Your task to perform on an android device: turn on data saver in the chrome app Image 0: 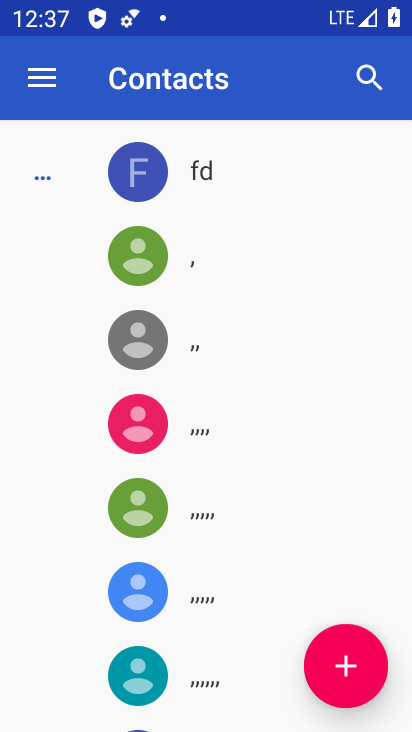
Step 0: press home button
Your task to perform on an android device: turn on data saver in the chrome app Image 1: 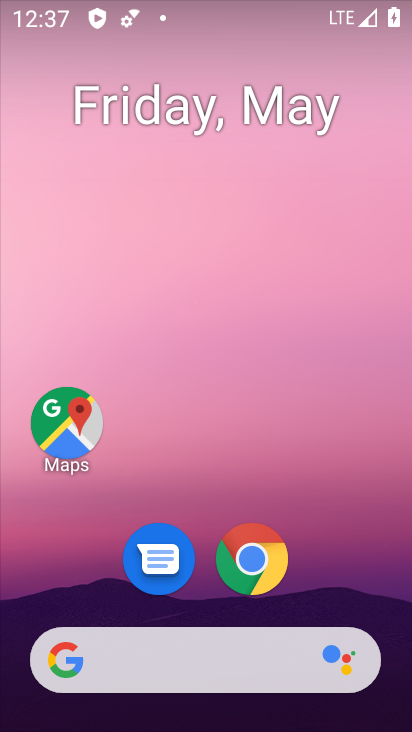
Step 1: click (259, 551)
Your task to perform on an android device: turn on data saver in the chrome app Image 2: 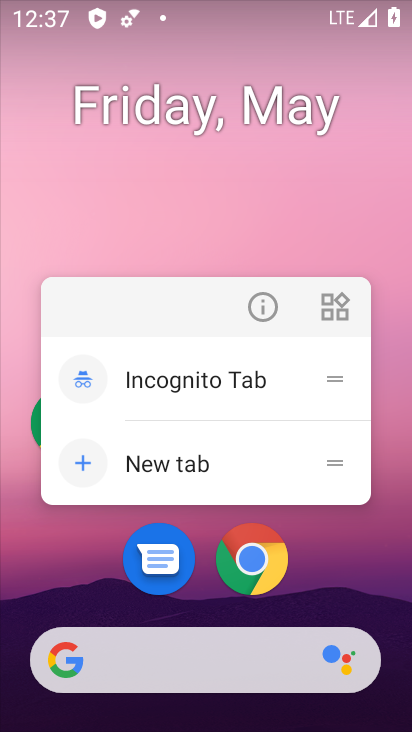
Step 2: click (259, 551)
Your task to perform on an android device: turn on data saver in the chrome app Image 3: 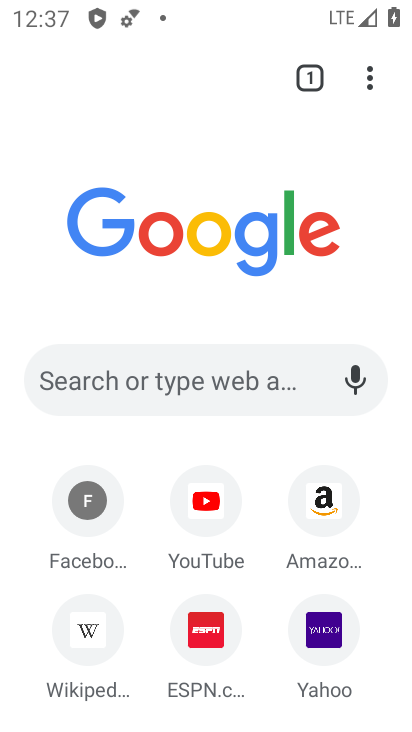
Step 3: drag from (376, 69) to (251, 620)
Your task to perform on an android device: turn on data saver in the chrome app Image 4: 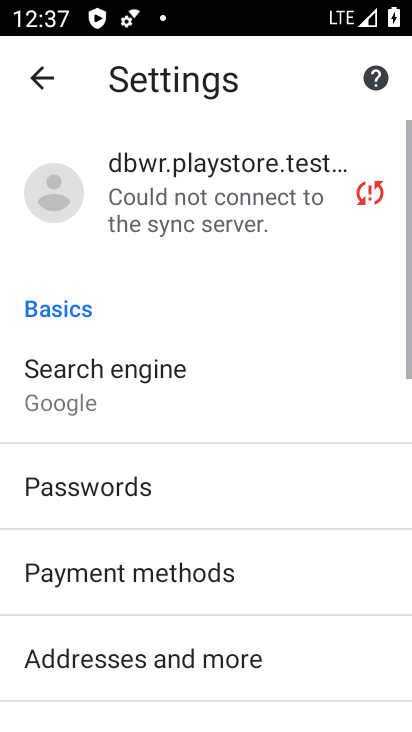
Step 4: drag from (253, 617) to (348, 104)
Your task to perform on an android device: turn on data saver in the chrome app Image 5: 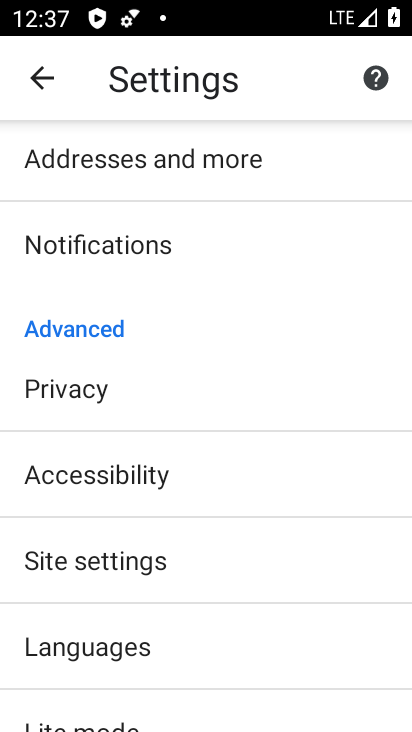
Step 5: drag from (144, 551) to (236, 269)
Your task to perform on an android device: turn on data saver in the chrome app Image 6: 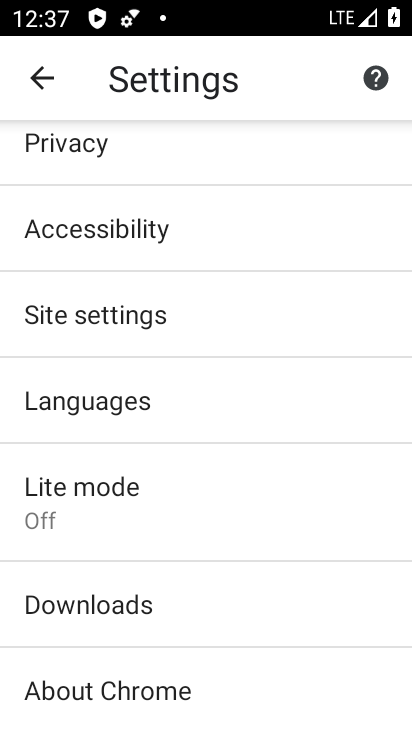
Step 6: click (122, 489)
Your task to perform on an android device: turn on data saver in the chrome app Image 7: 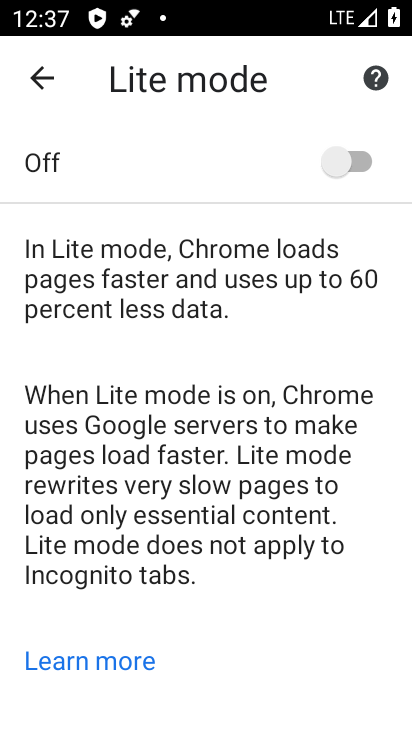
Step 7: click (367, 160)
Your task to perform on an android device: turn on data saver in the chrome app Image 8: 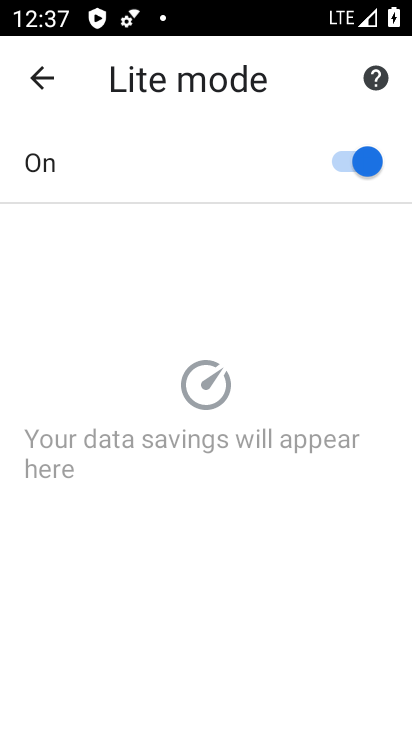
Step 8: task complete